Your task to perform on an android device: turn off sleep mode Image 0: 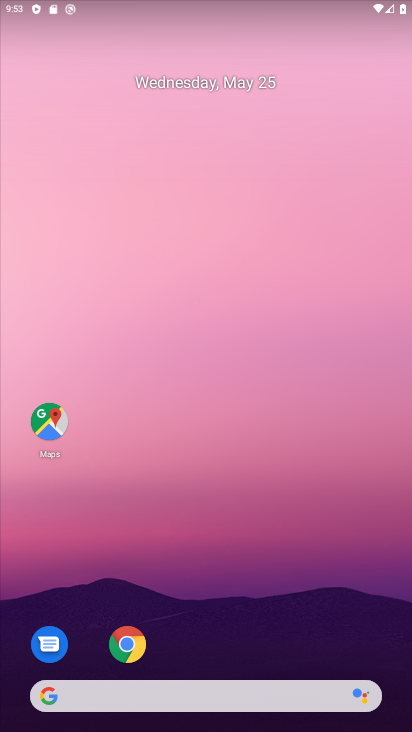
Step 0: drag from (290, 613) to (328, 5)
Your task to perform on an android device: turn off sleep mode Image 1: 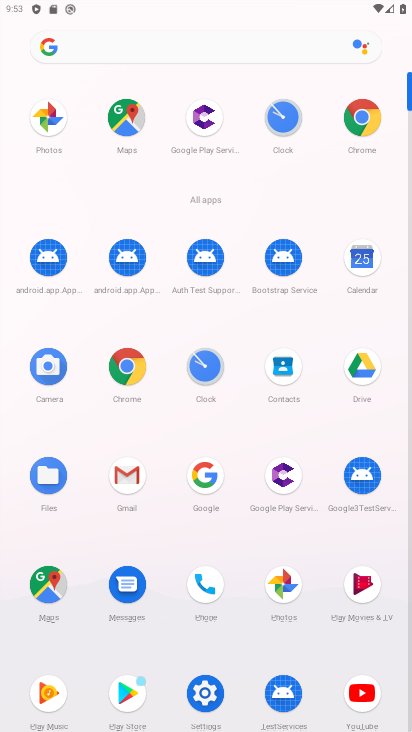
Step 1: click (201, 693)
Your task to perform on an android device: turn off sleep mode Image 2: 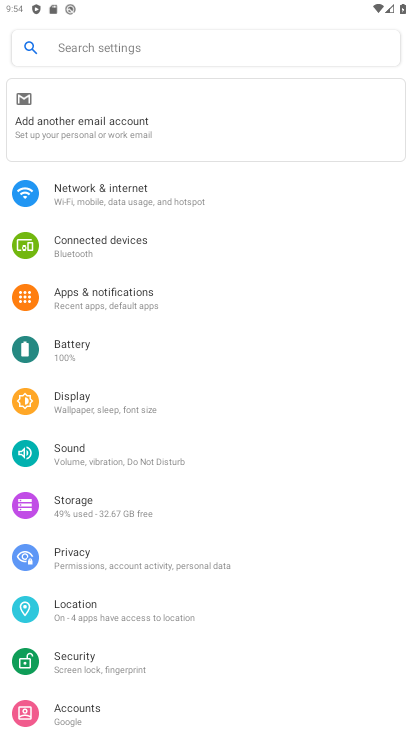
Step 2: task complete